Your task to perform on an android device: Open wifi settings Image 0: 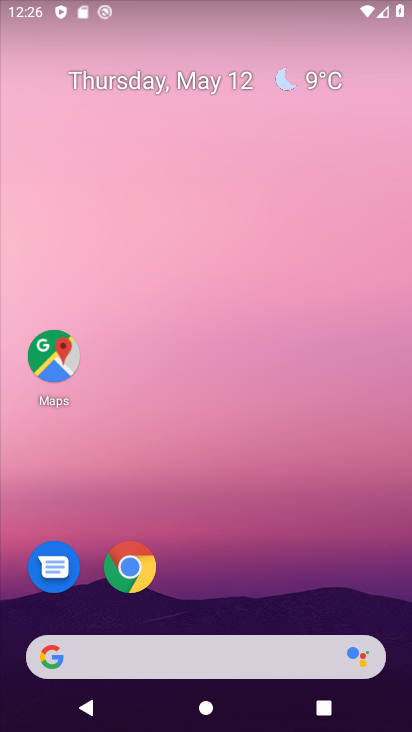
Step 0: drag from (171, 619) to (280, 96)
Your task to perform on an android device: Open wifi settings Image 1: 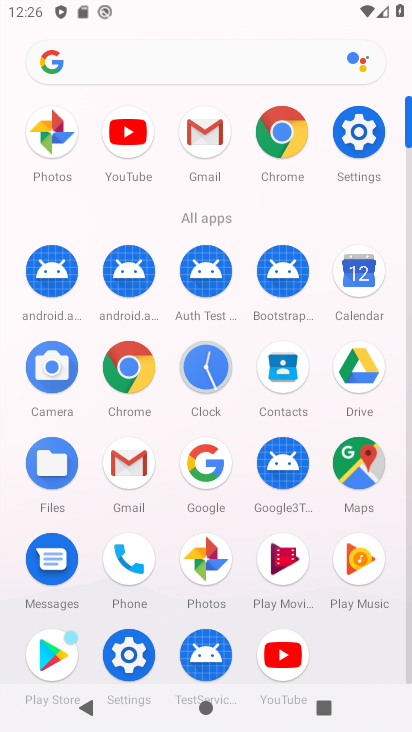
Step 1: click (134, 662)
Your task to perform on an android device: Open wifi settings Image 2: 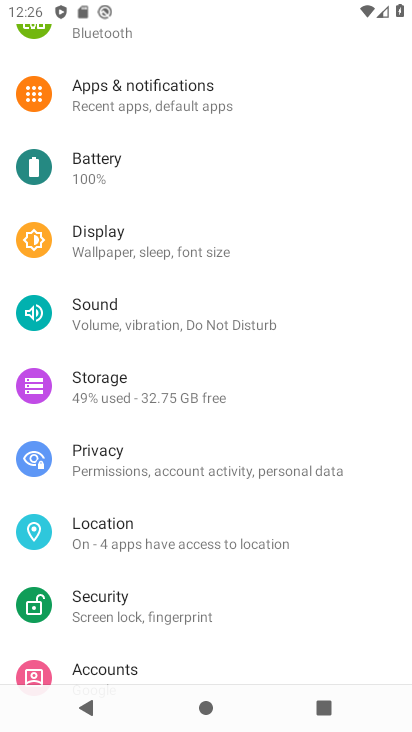
Step 2: drag from (279, 139) to (245, 674)
Your task to perform on an android device: Open wifi settings Image 3: 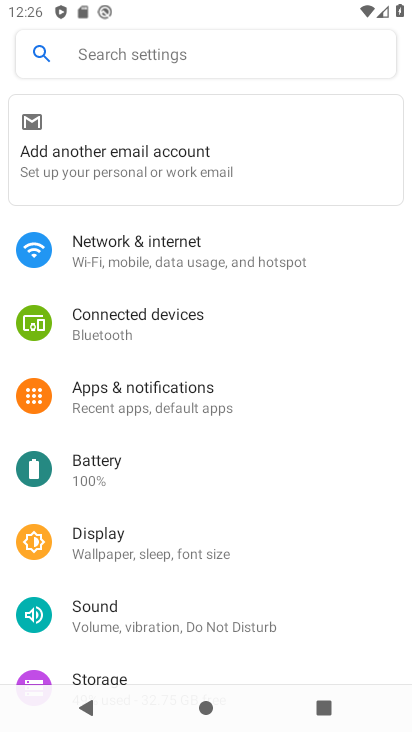
Step 3: click (230, 271)
Your task to perform on an android device: Open wifi settings Image 4: 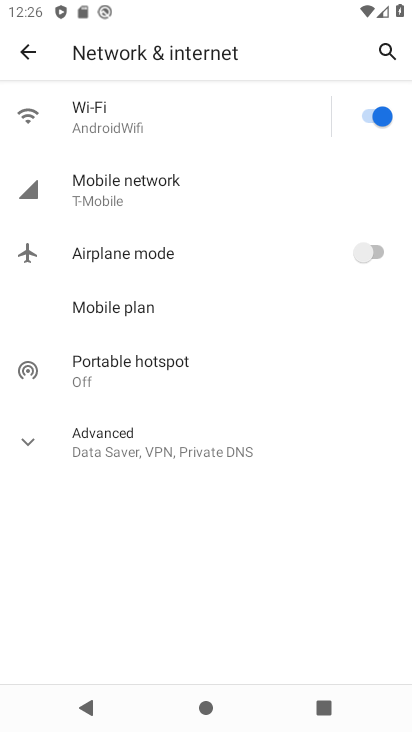
Step 4: click (175, 130)
Your task to perform on an android device: Open wifi settings Image 5: 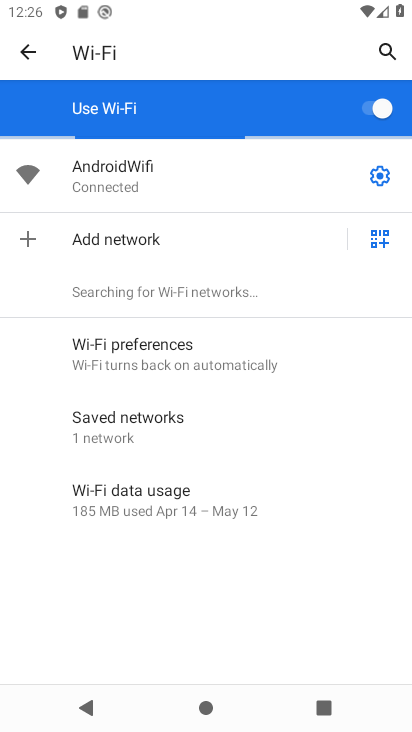
Step 5: task complete